Your task to perform on an android device: toggle sleep mode Image 0: 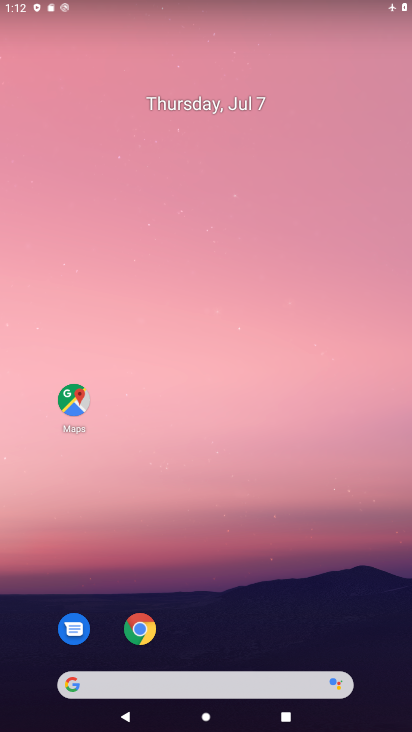
Step 0: drag from (222, 553) to (173, 42)
Your task to perform on an android device: toggle sleep mode Image 1: 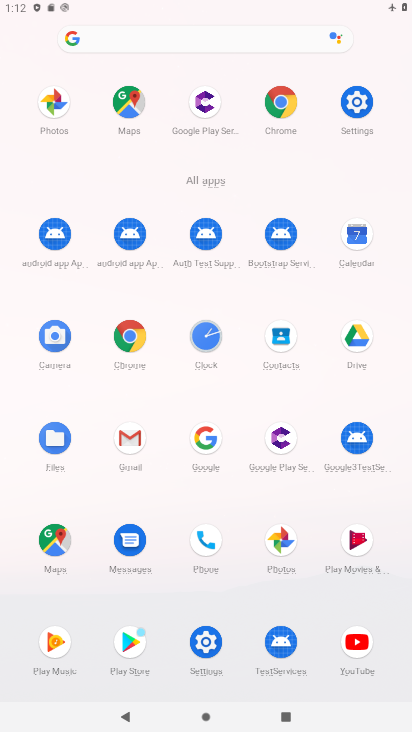
Step 1: click (356, 107)
Your task to perform on an android device: toggle sleep mode Image 2: 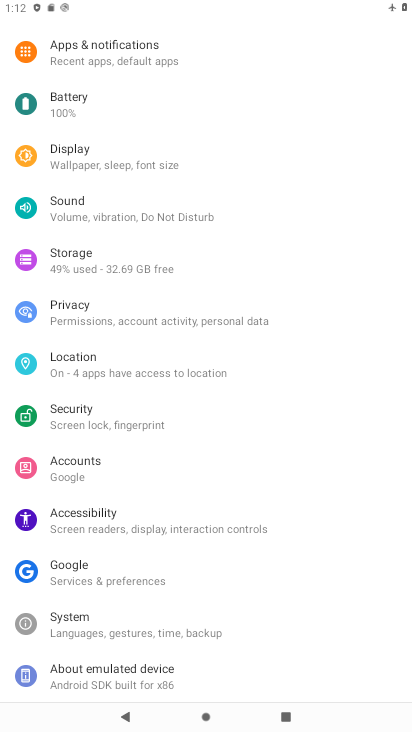
Step 2: click (75, 150)
Your task to perform on an android device: toggle sleep mode Image 3: 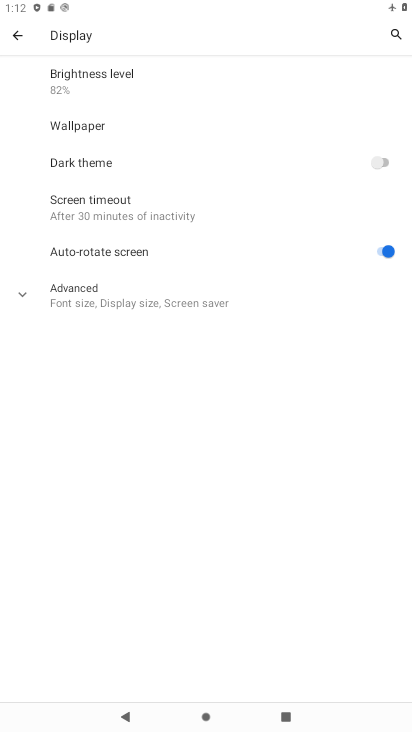
Step 3: click (116, 206)
Your task to perform on an android device: toggle sleep mode Image 4: 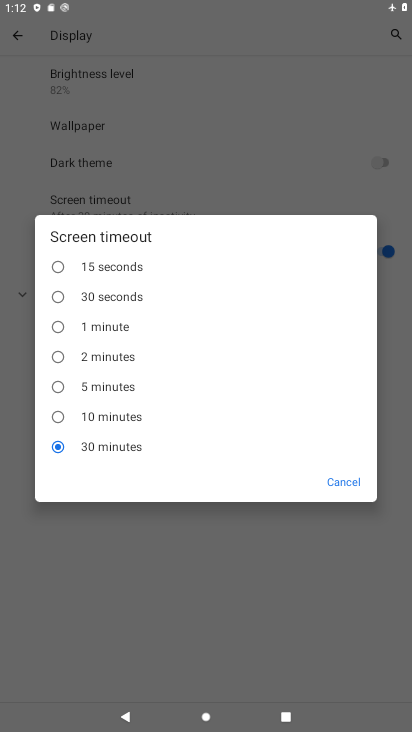
Step 4: click (88, 355)
Your task to perform on an android device: toggle sleep mode Image 5: 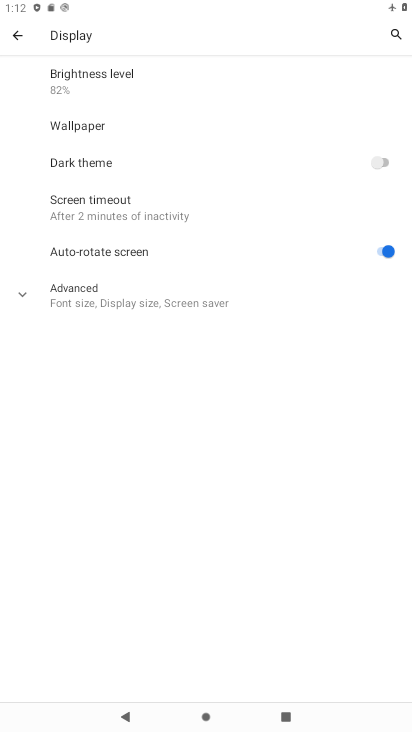
Step 5: task complete